Your task to perform on an android device: Go to display settings Image 0: 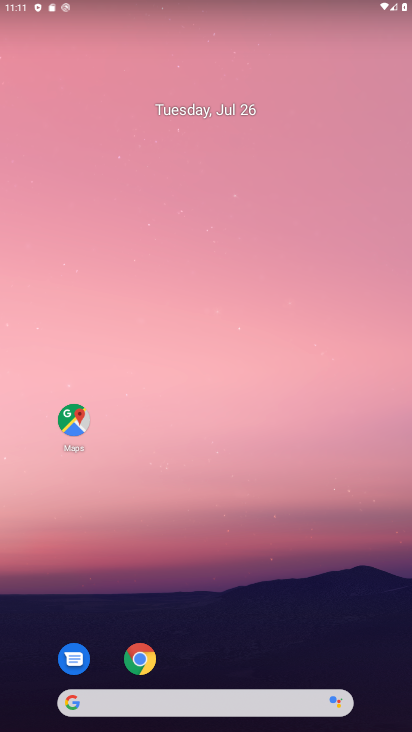
Step 0: press home button
Your task to perform on an android device: Go to display settings Image 1: 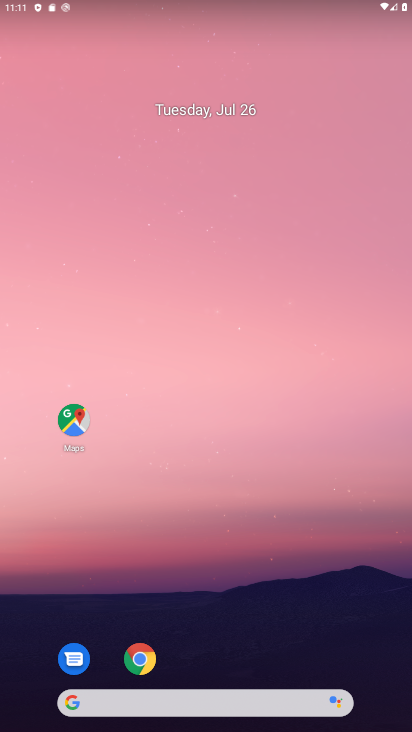
Step 1: drag from (129, 477) to (327, 125)
Your task to perform on an android device: Go to display settings Image 2: 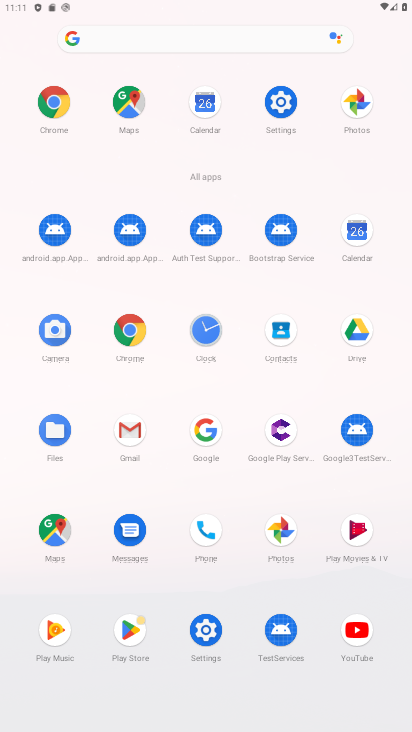
Step 2: click (278, 101)
Your task to perform on an android device: Go to display settings Image 3: 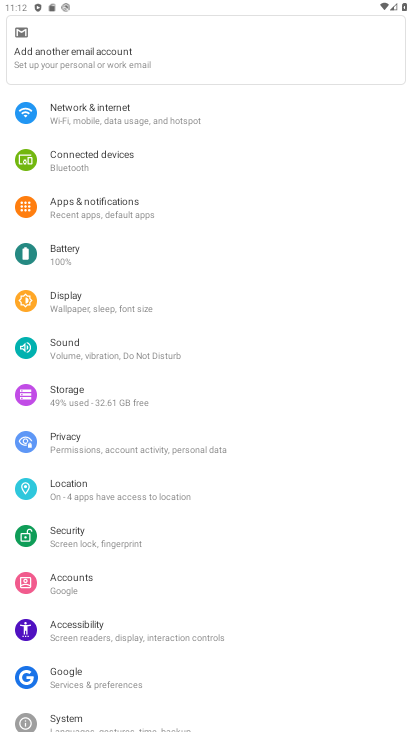
Step 3: click (60, 294)
Your task to perform on an android device: Go to display settings Image 4: 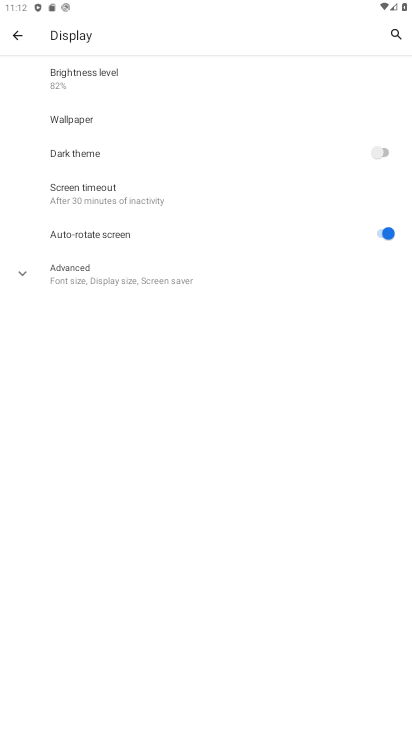
Step 4: task complete